Your task to perform on an android device: Open battery settings Image 0: 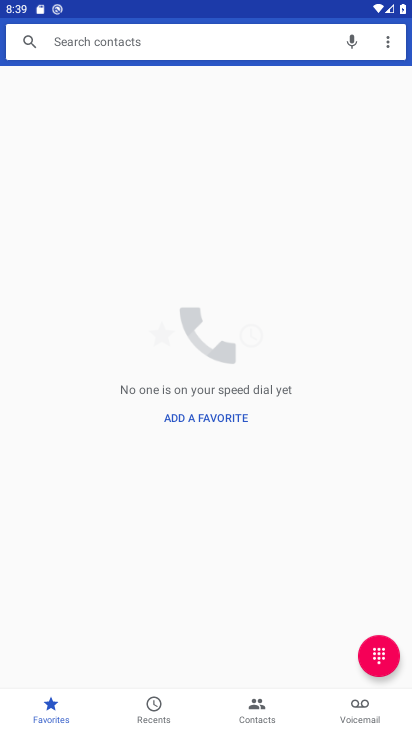
Step 0: press home button
Your task to perform on an android device: Open battery settings Image 1: 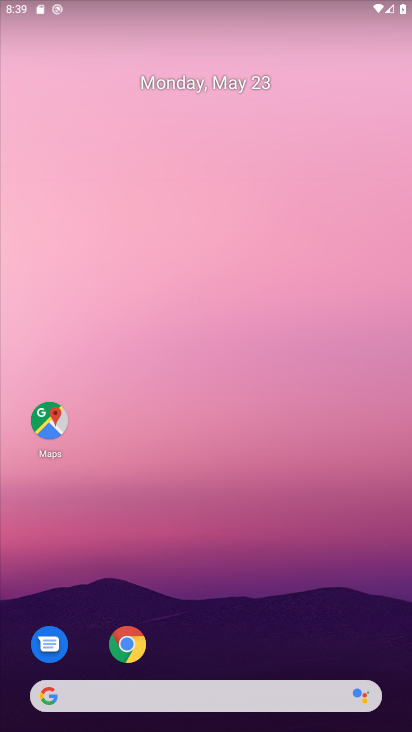
Step 1: drag from (305, 499) to (296, 120)
Your task to perform on an android device: Open battery settings Image 2: 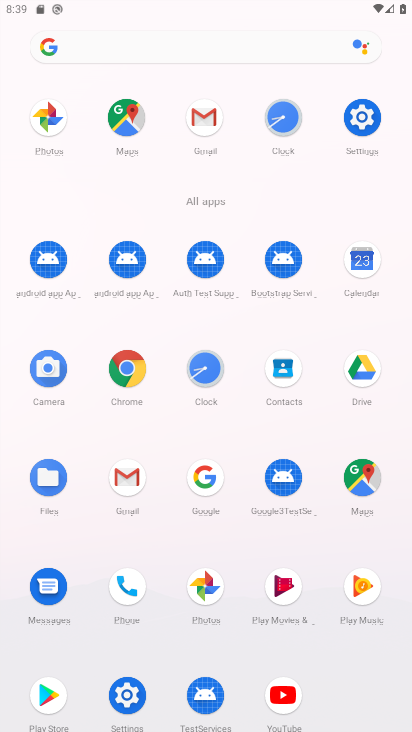
Step 2: click (133, 697)
Your task to perform on an android device: Open battery settings Image 3: 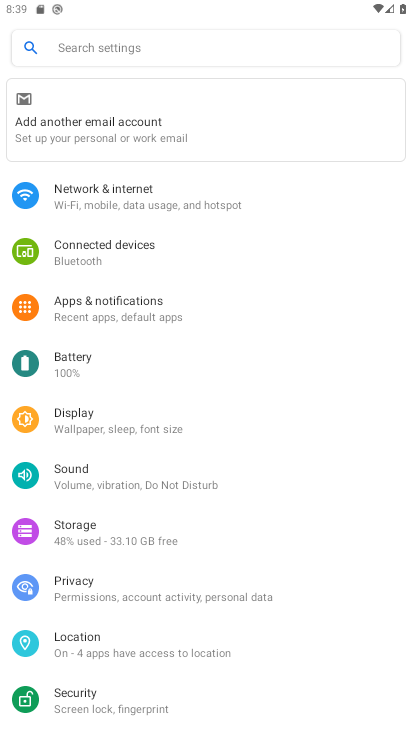
Step 3: click (129, 371)
Your task to perform on an android device: Open battery settings Image 4: 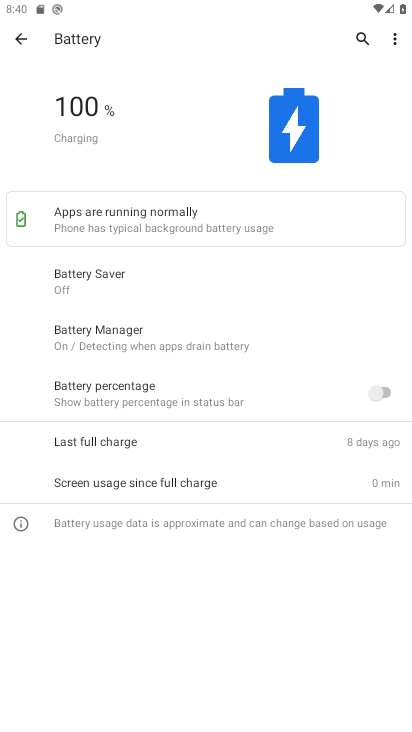
Step 4: task complete